Your task to perform on an android device: Go to Maps Image 0: 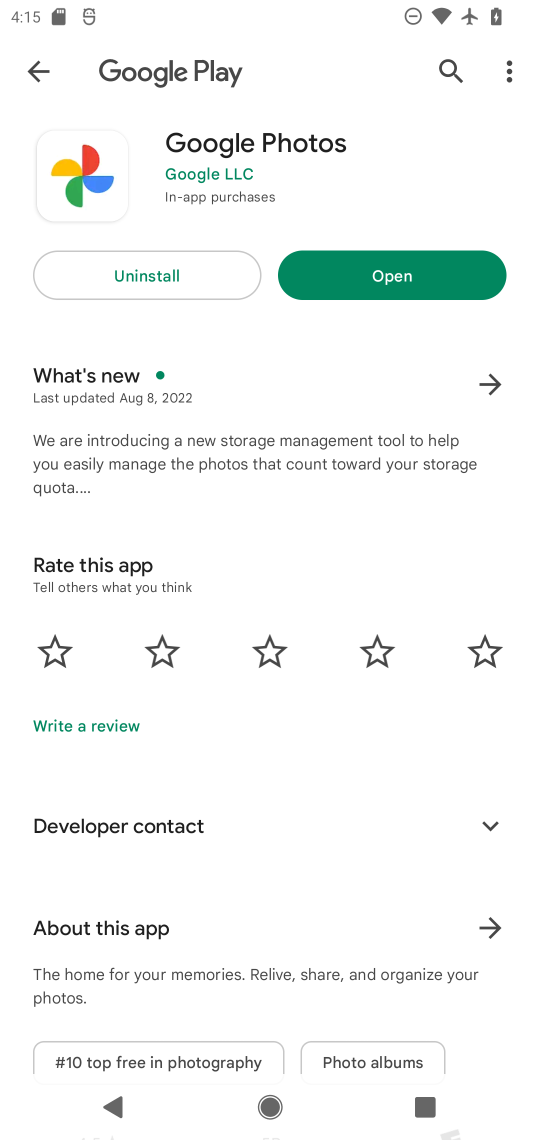
Step 0: press home button
Your task to perform on an android device: Go to Maps Image 1: 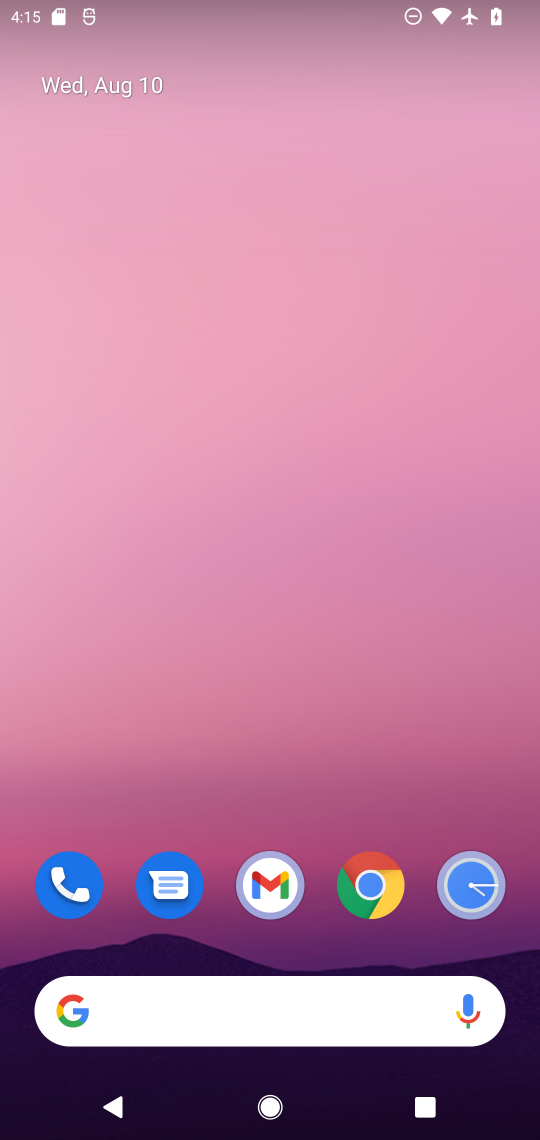
Step 1: drag from (308, 941) to (300, 208)
Your task to perform on an android device: Go to Maps Image 2: 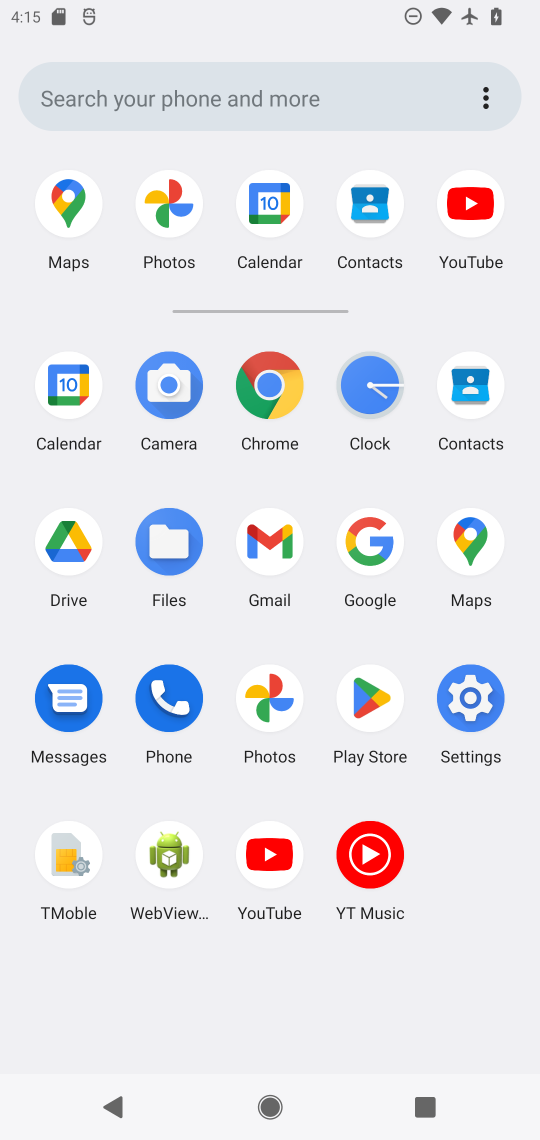
Step 2: click (65, 186)
Your task to perform on an android device: Go to Maps Image 3: 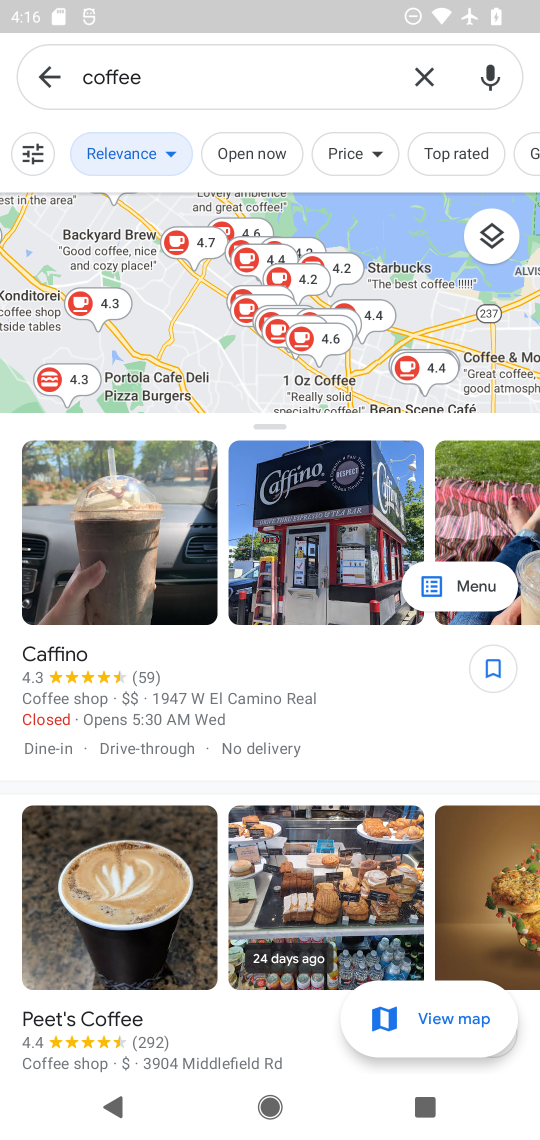
Step 3: click (51, 73)
Your task to perform on an android device: Go to Maps Image 4: 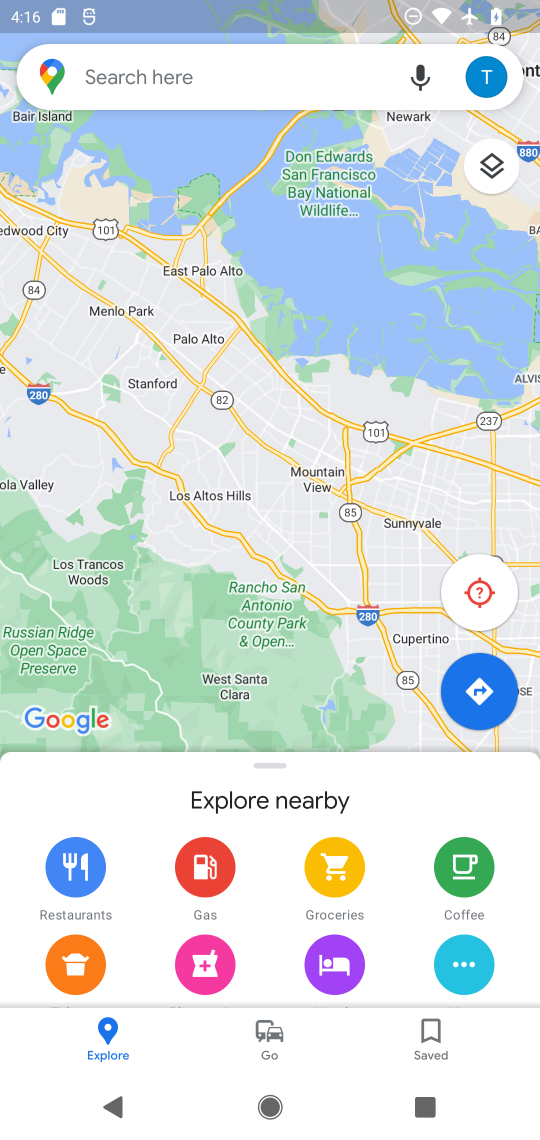
Step 4: task complete